Your task to perform on an android device: Open internet settings Image 0: 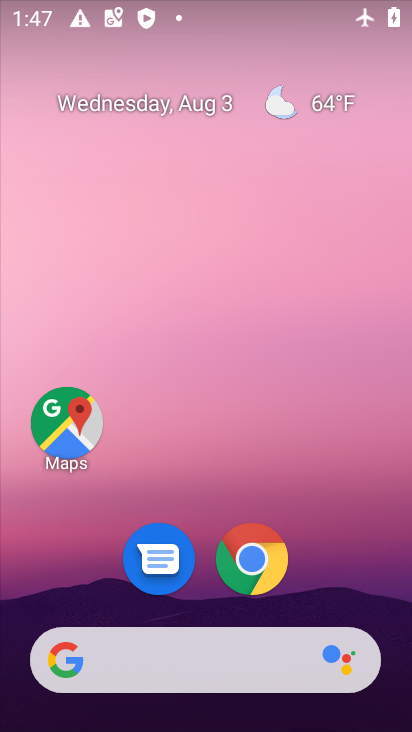
Step 0: drag from (217, 622) to (192, 46)
Your task to perform on an android device: Open internet settings Image 1: 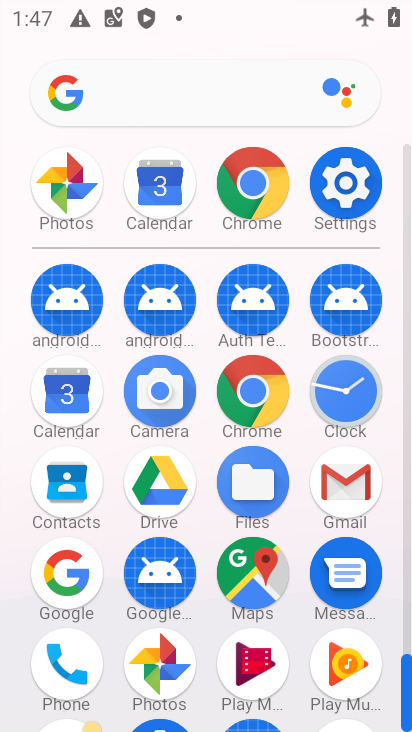
Step 1: click (342, 179)
Your task to perform on an android device: Open internet settings Image 2: 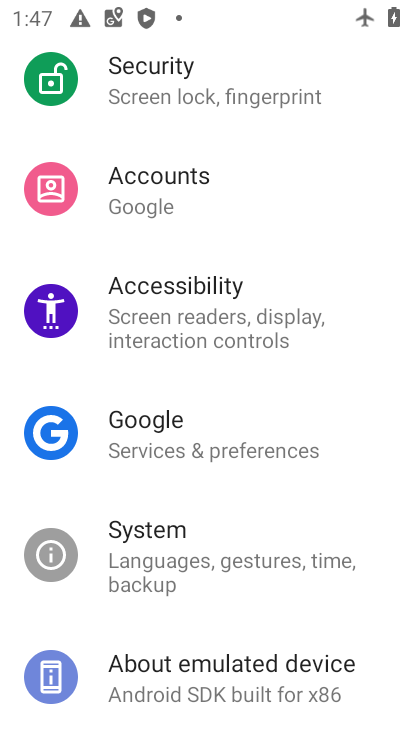
Step 2: drag from (183, 164) to (202, 545)
Your task to perform on an android device: Open internet settings Image 3: 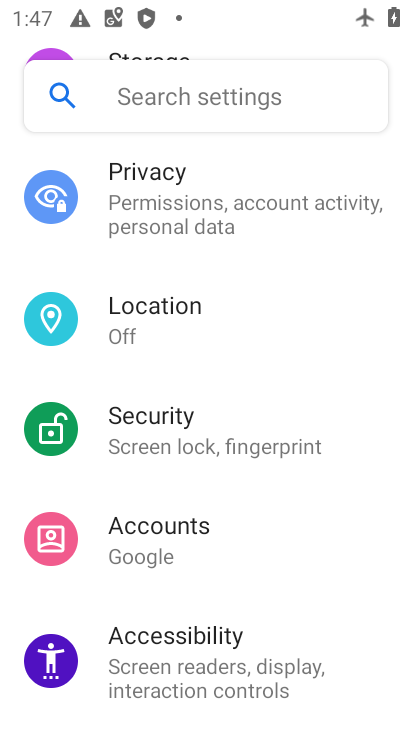
Step 3: drag from (172, 182) to (207, 487)
Your task to perform on an android device: Open internet settings Image 4: 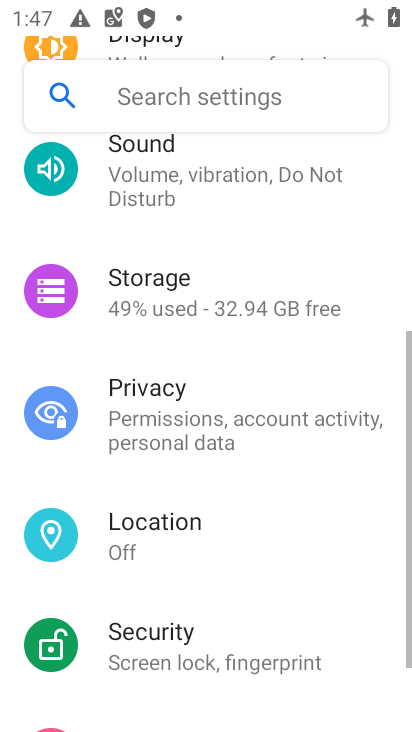
Step 4: drag from (216, 218) to (229, 529)
Your task to perform on an android device: Open internet settings Image 5: 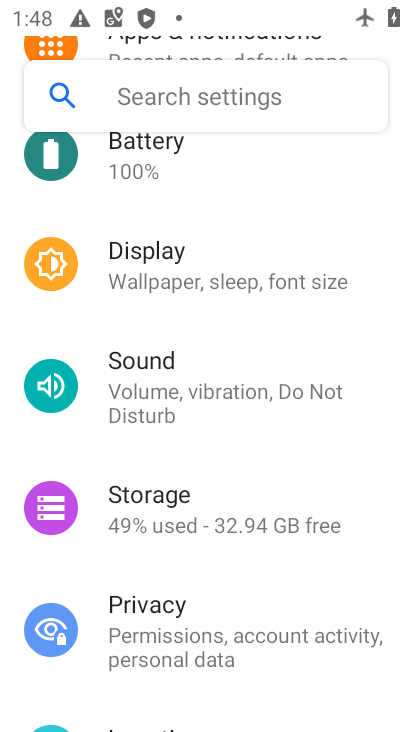
Step 5: drag from (238, 172) to (226, 603)
Your task to perform on an android device: Open internet settings Image 6: 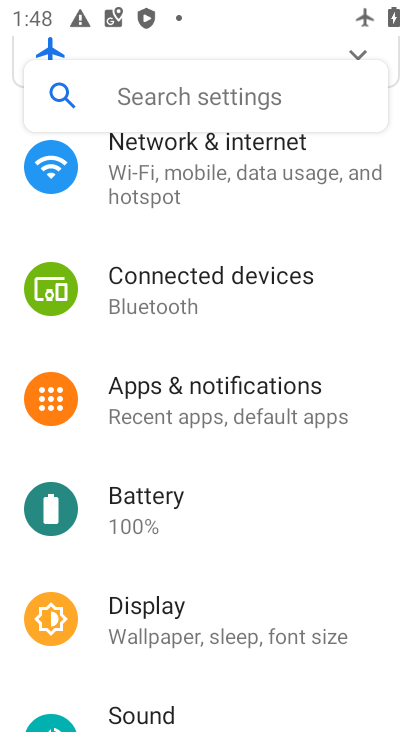
Step 6: click (162, 178)
Your task to perform on an android device: Open internet settings Image 7: 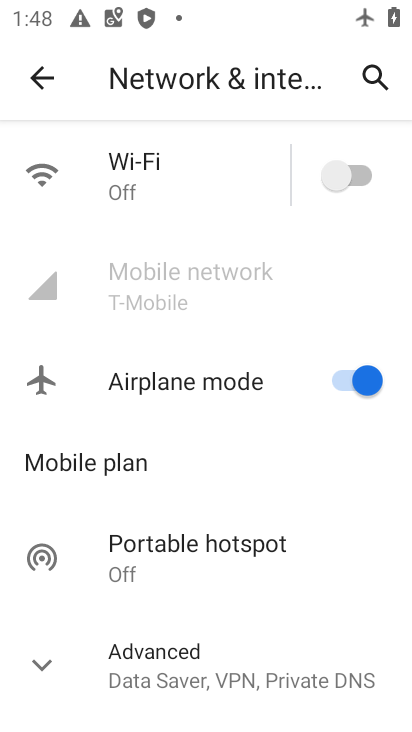
Step 7: task complete